Your task to perform on an android device: clear history in the chrome app Image 0: 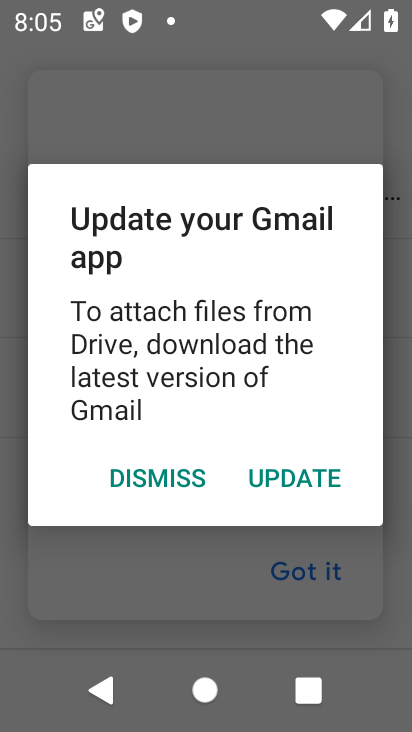
Step 0: press home button
Your task to perform on an android device: clear history in the chrome app Image 1: 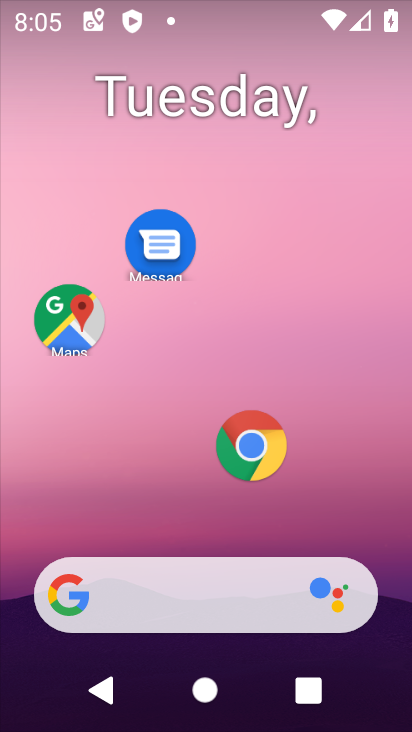
Step 1: click (245, 445)
Your task to perform on an android device: clear history in the chrome app Image 2: 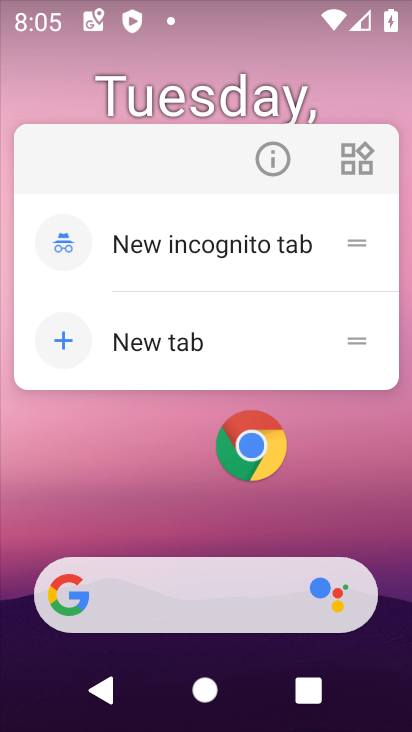
Step 2: click (245, 445)
Your task to perform on an android device: clear history in the chrome app Image 3: 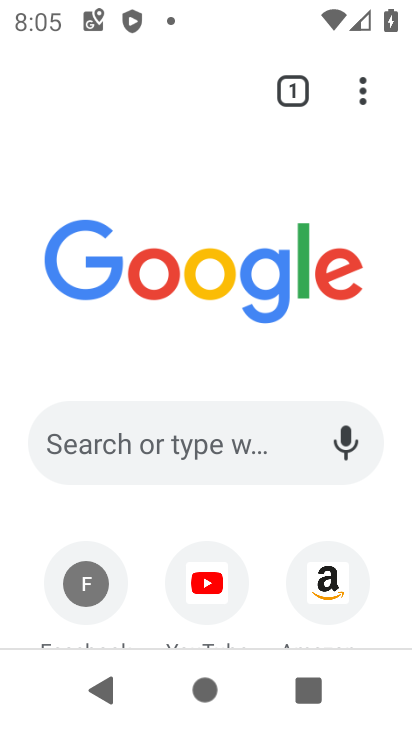
Step 3: click (357, 84)
Your task to perform on an android device: clear history in the chrome app Image 4: 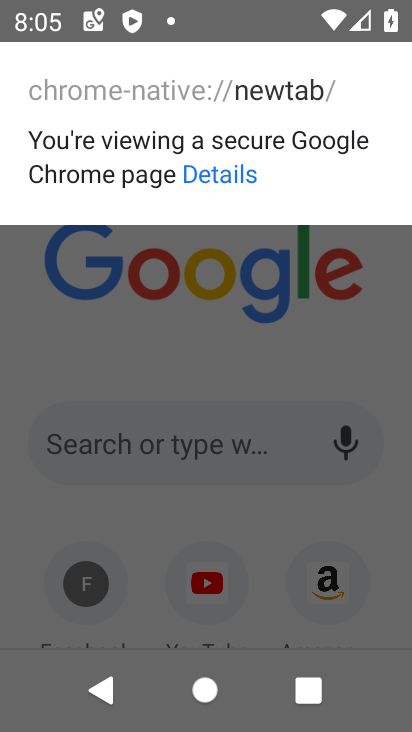
Step 4: click (362, 281)
Your task to perform on an android device: clear history in the chrome app Image 5: 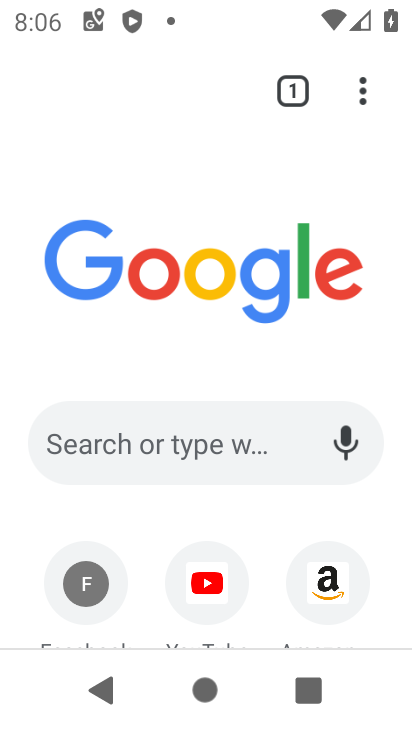
Step 5: click (364, 93)
Your task to perform on an android device: clear history in the chrome app Image 6: 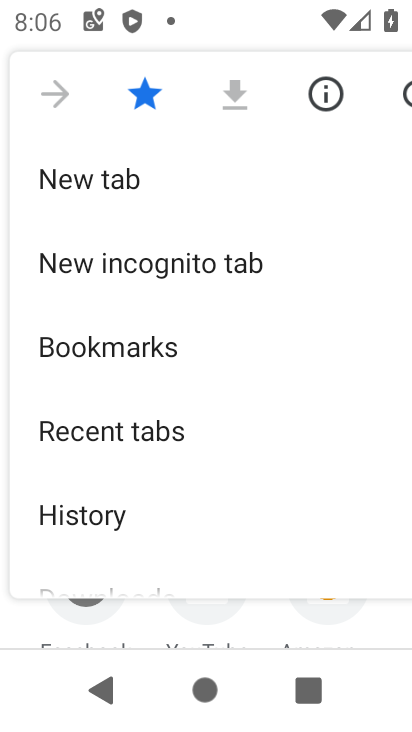
Step 6: click (84, 525)
Your task to perform on an android device: clear history in the chrome app Image 7: 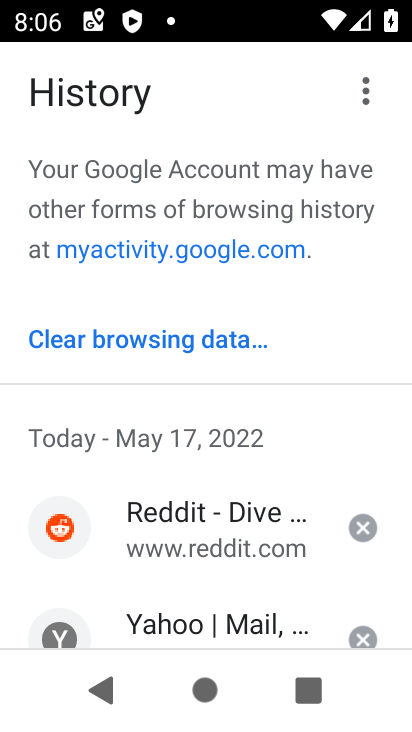
Step 7: click (149, 333)
Your task to perform on an android device: clear history in the chrome app Image 8: 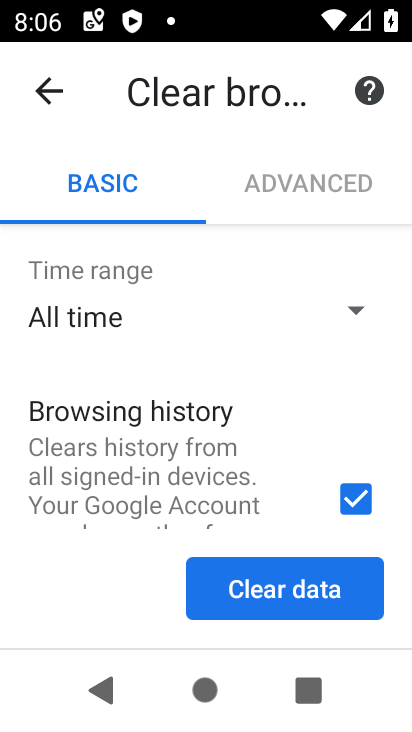
Step 8: drag from (291, 519) to (279, 272)
Your task to perform on an android device: clear history in the chrome app Image 9: 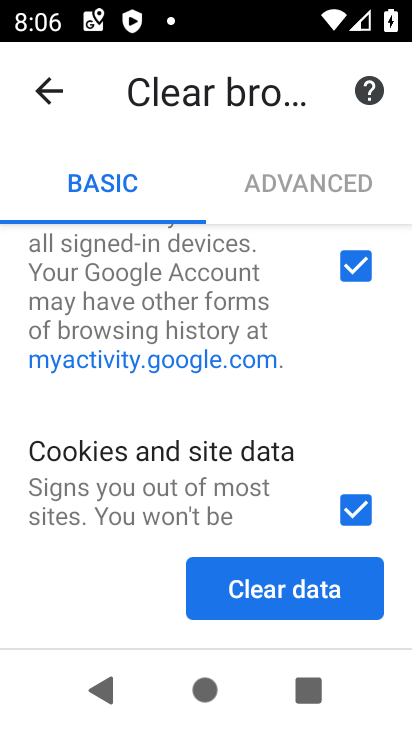
Step 9: drag from (275, 502) to (265, 351)
Your task to perform on an android device: clear history in the chrome app Image 10: 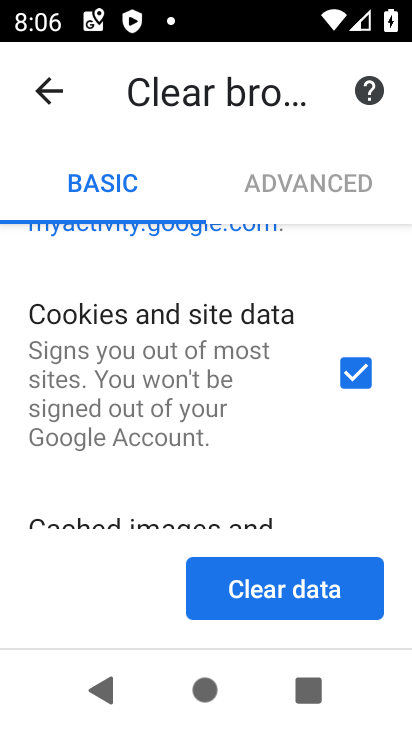
Step 10: drag from (275, 513) to (280, 387)
Your task to perform on an android device: clear history in the chrome app Image 11: 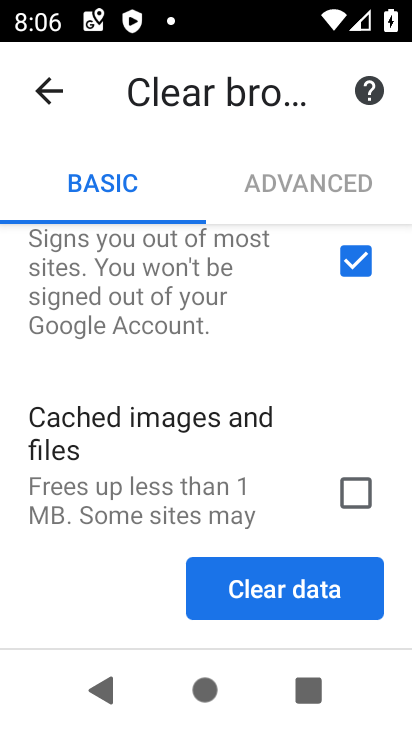
Step 11: click (351, 498)
Your task to perform on an android device: clear history in the chrome app Image 12: 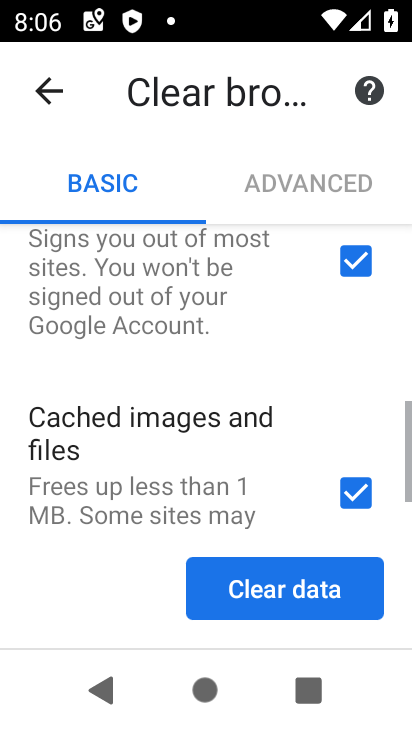
Step 12: click (284, 602)
Your task to perform on an android device: clear history in the chrome app Image 13: 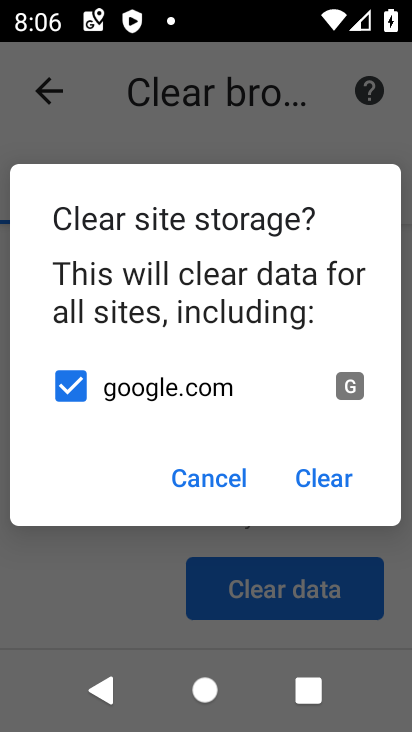
Step 13: click (338, 475)
Your task to perform on an android device: clear history in the chrome app Image 14: 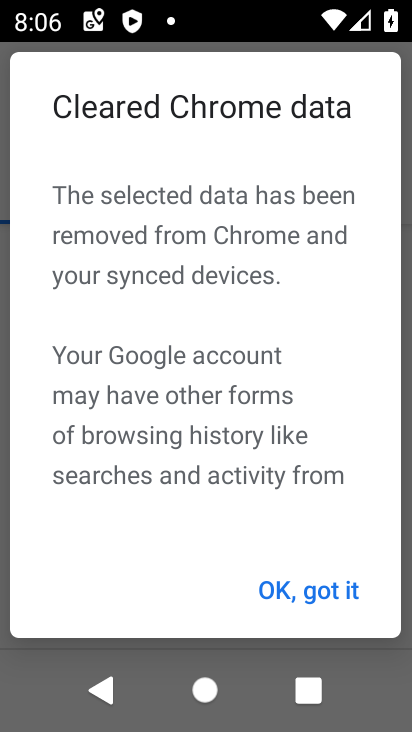
Step 14: click (349, 583)
Your task to perform on an android device: clear history in the chrome app Image 15: 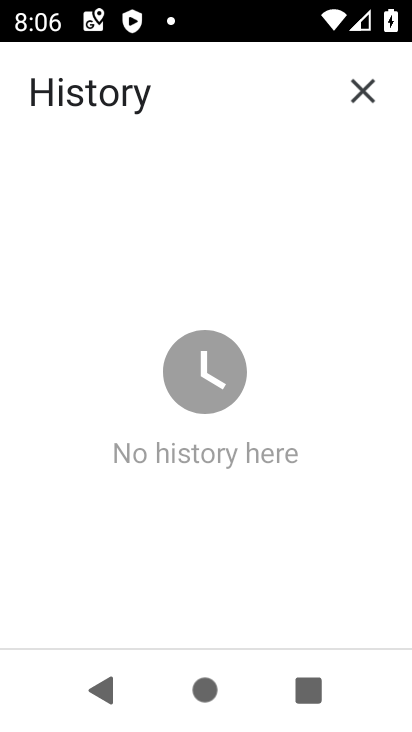
Step 15: task complete